Your task to perform on an android device: snooze an email in the gmail app Image 0: 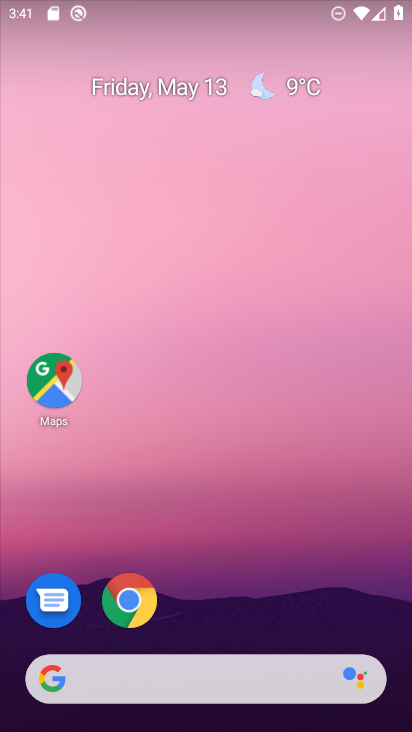
Step 0: drag from (180, 639) to (256, 202)
Your task to perform on an android device: snooze an email in the gmail app Image 1: 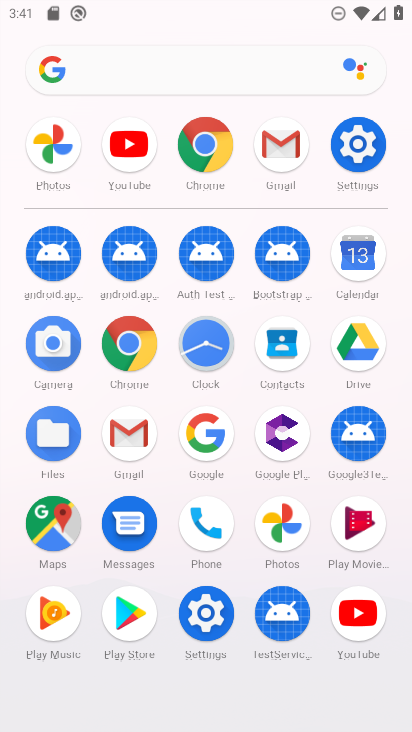
Step 1: click (125, 431)
Your task to perform on an android device: snooze an email in the gmail app Image 2: 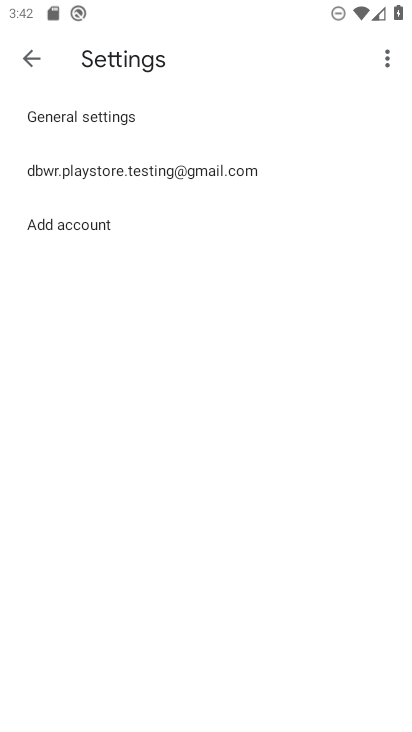
Step 2: click (28, 59)
Your task to perform on an android device: snooze an email in the gmail app Image 3: 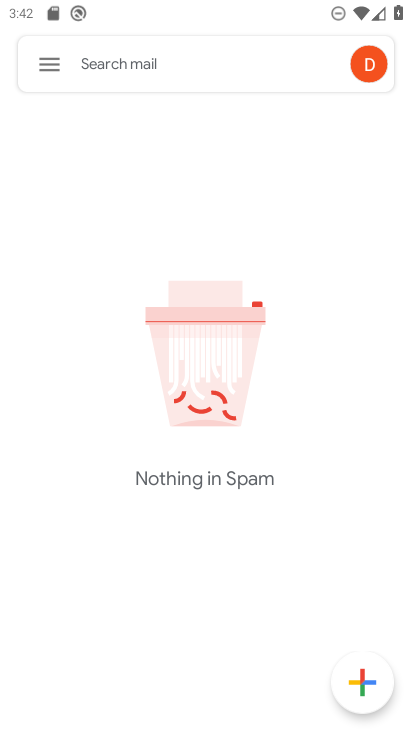
Step 3: click (55, 75)
Your task to perform on an android device: snooze an email in the gmail app Image 4: 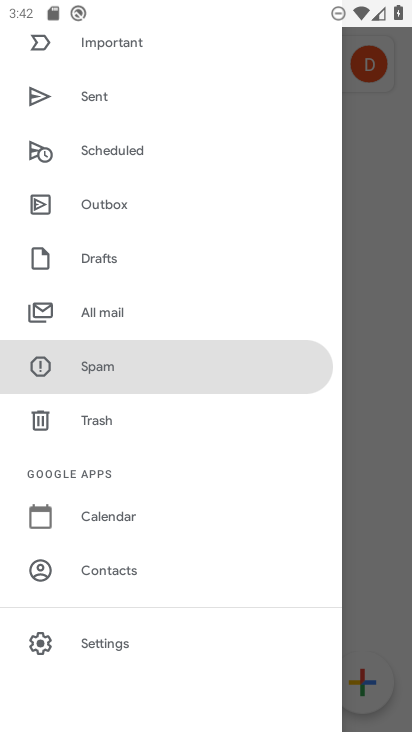
Step 4: drag from (133, 120) to (246, 692)
Your task to perform on an android device: snooze an email in the gmail app Image 5: 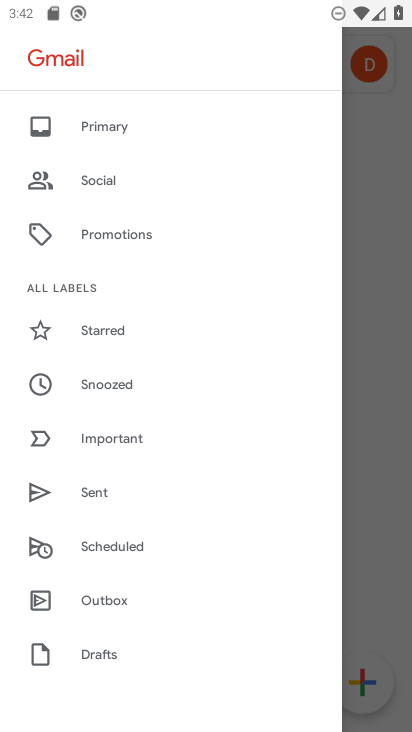
Step 5: drag from (169, 175) to (196, 719)
Your task to perform on an android device: snooze an email in the gmail app Image 6: 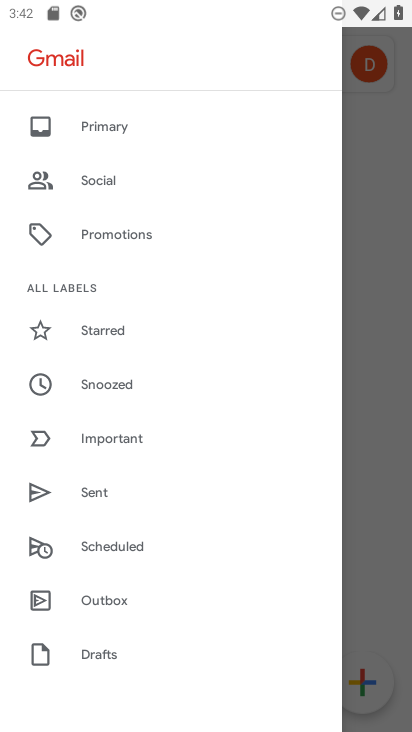
Step 6: drag from (110, 636) to (212, 362)
Your task to perform on an android device: snooze an email in the gmail app Image 7: 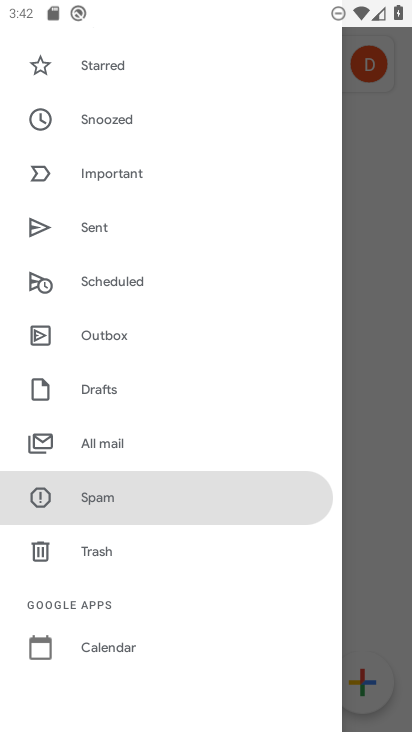
Step 7: click (128, 137)
Your task to perform on an android device: snooze an email in the gmail app Image 8: 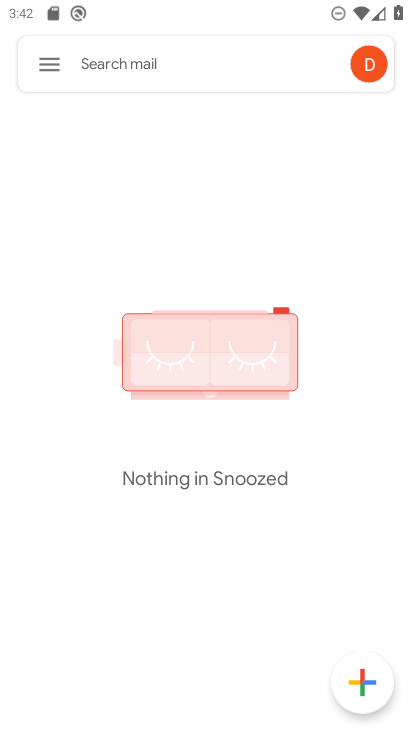
Step 8: click (336, 254)
Your task to perform on an android device: snooze an email in the gmail app Image 9: 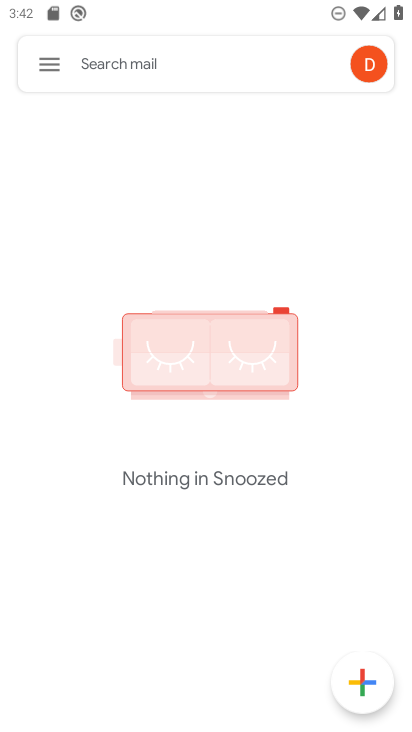
Step 9: task complete